Your task to perform on an android device: Go to eBay Image 0: 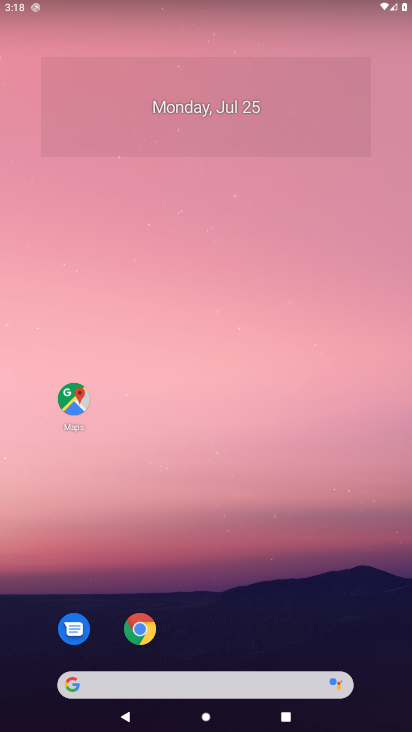
Step 0: click (114, 673)
Your task to perform on an android device: Go to eBay Image 1: 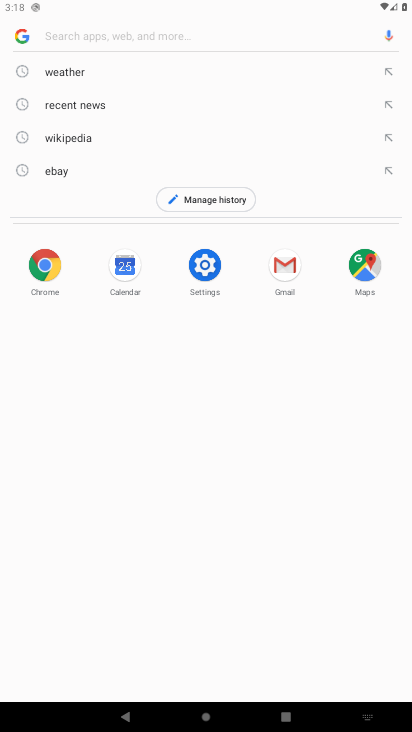
Step 1: click (59, 172)
Your task to perform on an android device: Go to eBay Image 2: 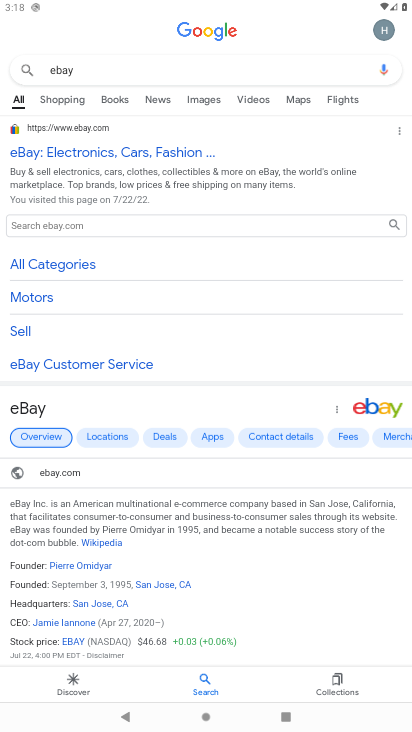
Step 2: task complete